Your task to perform on an android device: Go to sound settings Image 0: 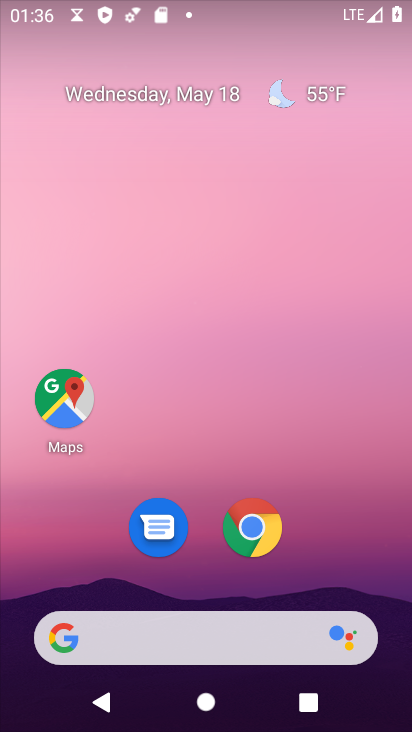
Step 0: drag from (343, 542) to (253, 37)
Your task to perform on an android device: Go to sound settings Image 1: 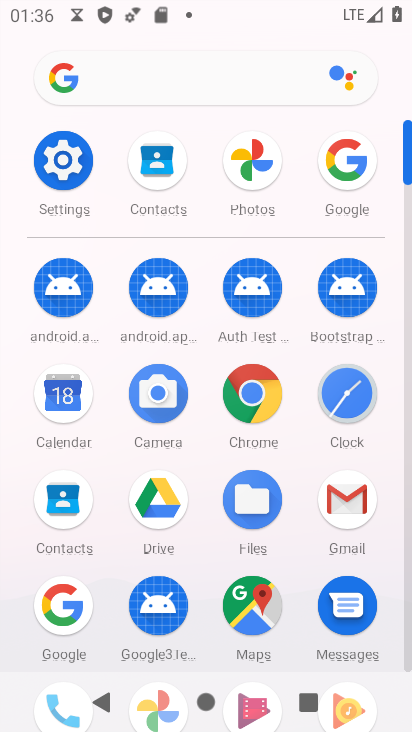
Step 1: click (75, 160)
Your task to perform on an android device: Go to sound settings Image 2: 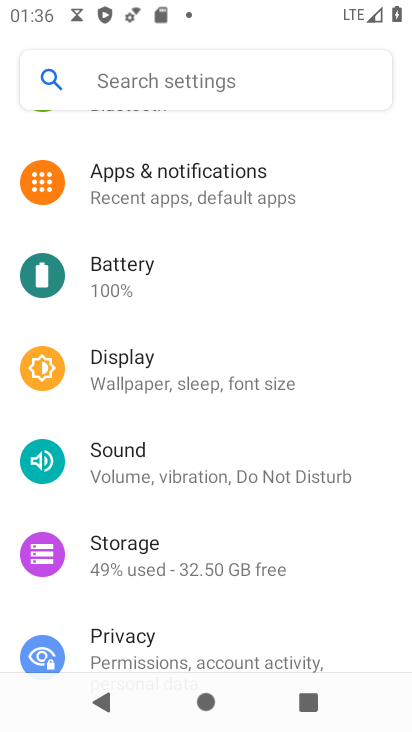
Step 2: click (170, 474)
Your task to perform on an android device: Go to sound settings Image 3: 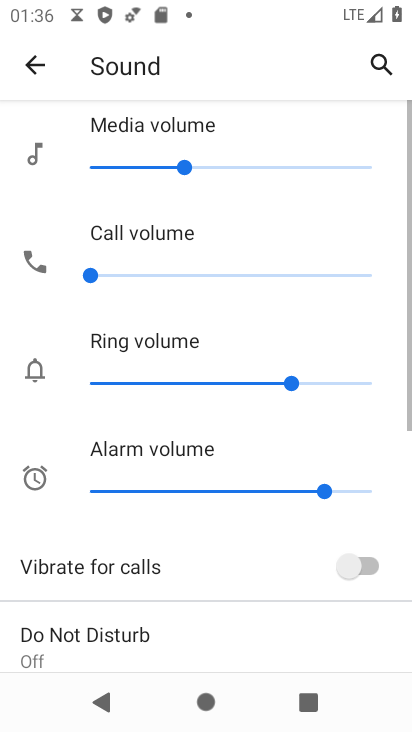
Step 3: task complete